Your task to perform on an android device: make emails show in primary in the gmail app Image 0: 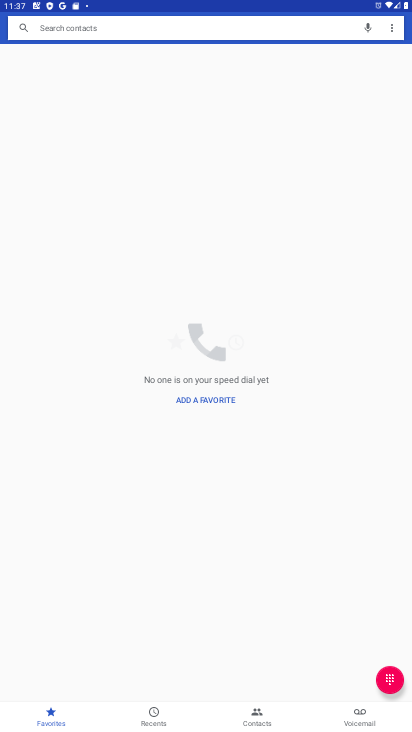
Step 0: press home button
Your task to perform on an android device: make emails show in primary in the gmail app Image 1: 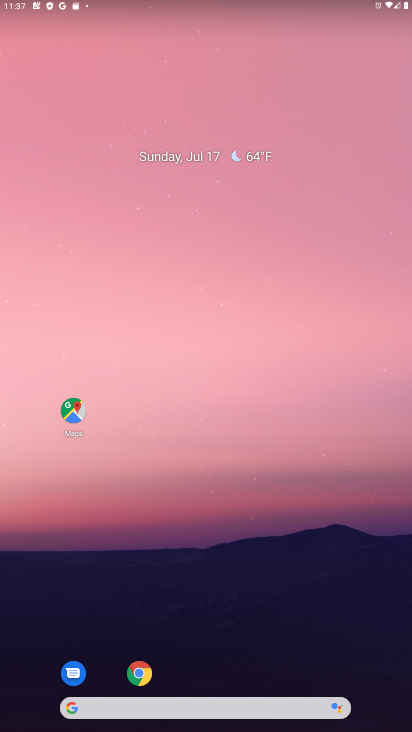
Step 1: drag from (231, 676) to (197, 106)
Your task to perform on an android device: make emails show in primary in the gmail app Image 2: 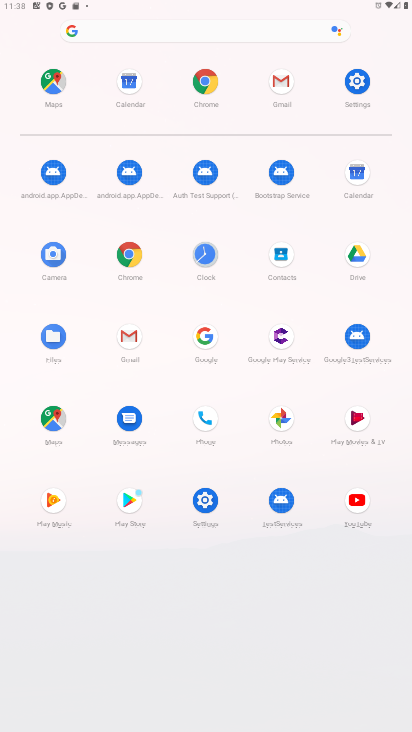
Step 2: click (131, 343)
Your task to perform on an android device: make emails show in primary in the gmail app Image 3: 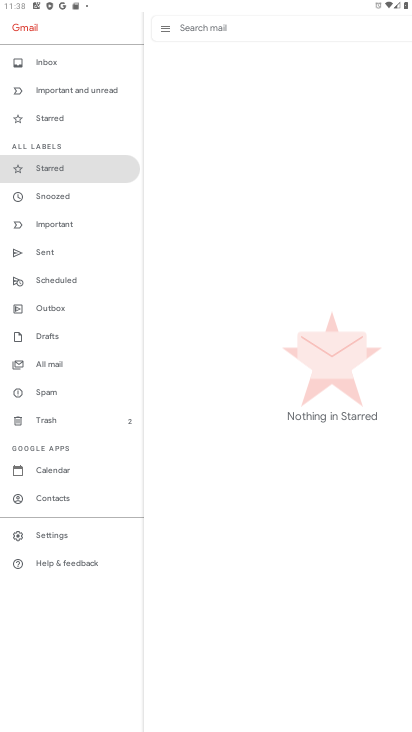
Step 3: click (62, 534)
Your task to perform on an android device: make emails show in primary in the gmail app Image 4: 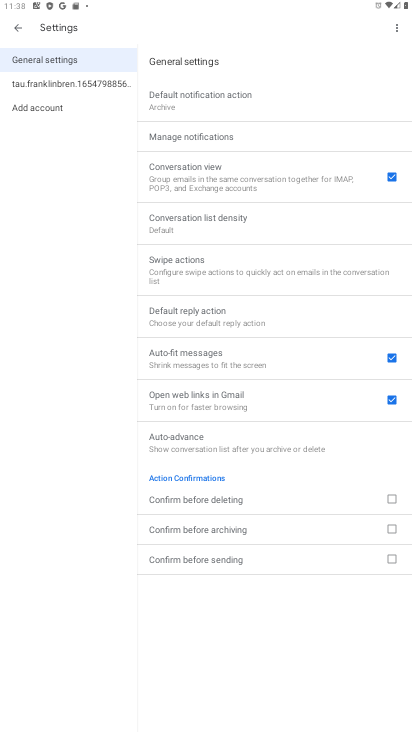
Step 4: click (80, 80)
Your task to perform on an android device: make emails show in primary in the gmail app Image 5: 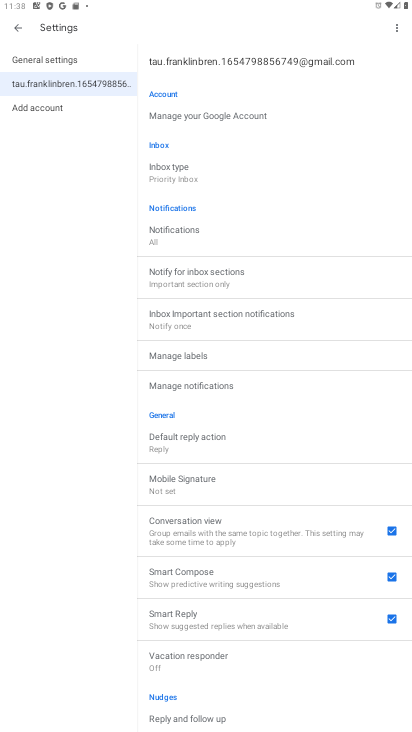
Step 5: click (183, 175)
Your task to perform on an android device: make emails show in primary in the gmail app Image 6: 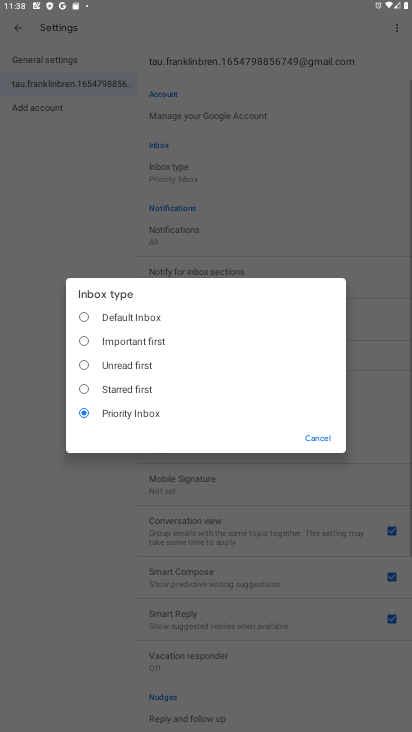
Step 6: click (113, 314)
Your task to perform on an android device: make emails show in primary in the gmail app Image 7: 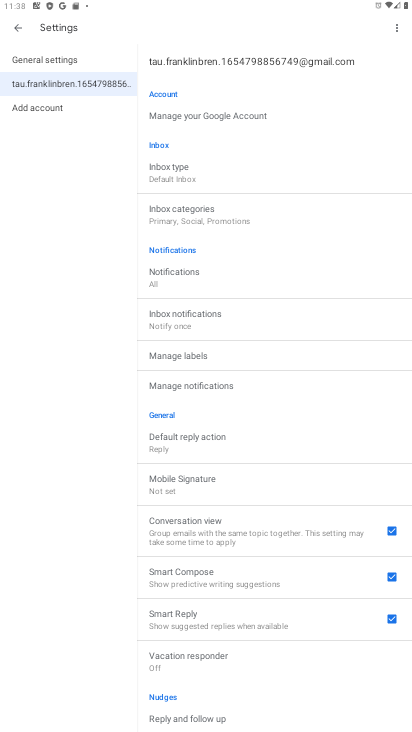
Step 7: click (190, 216)
Your task to perform on an android device: make emails show in primary in the gmail app Image 8: 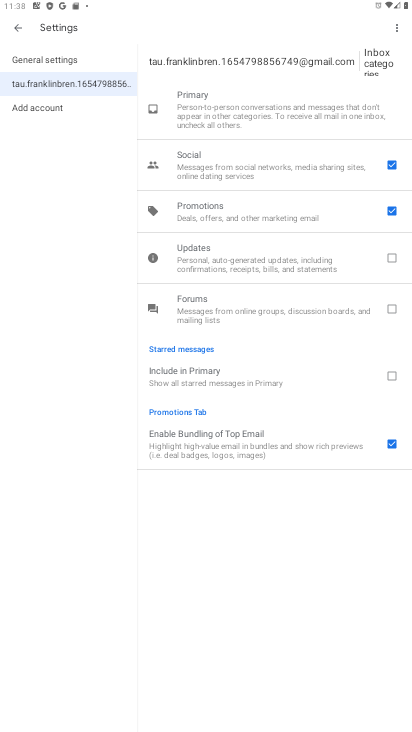
Step 8: click (394, 209)
Your task to perform on an android device: make emails show in primary in the gmail app Image 9: 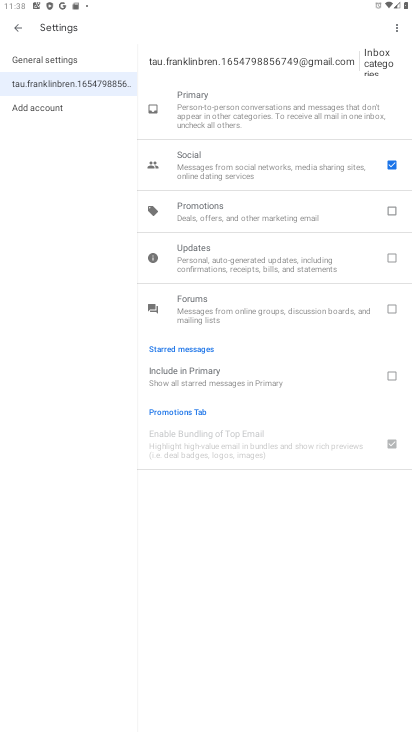
Step 9: click (388, 167)
Your task to perform on an android device: make emails show in primary in the gmail app Image 10: 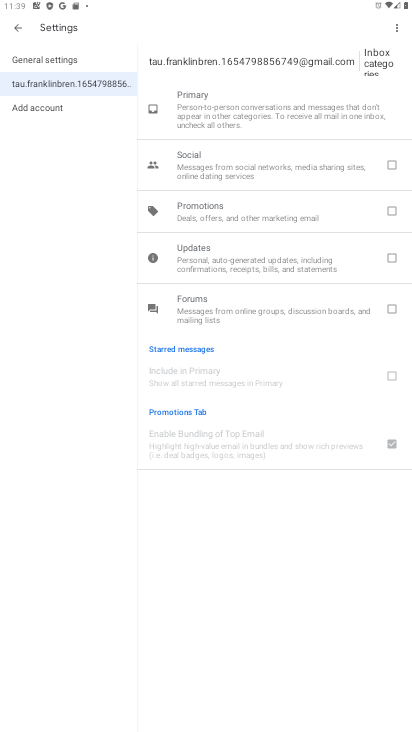
Step 10: task complete